Your task to perform on an android device: Open the map Image 0: 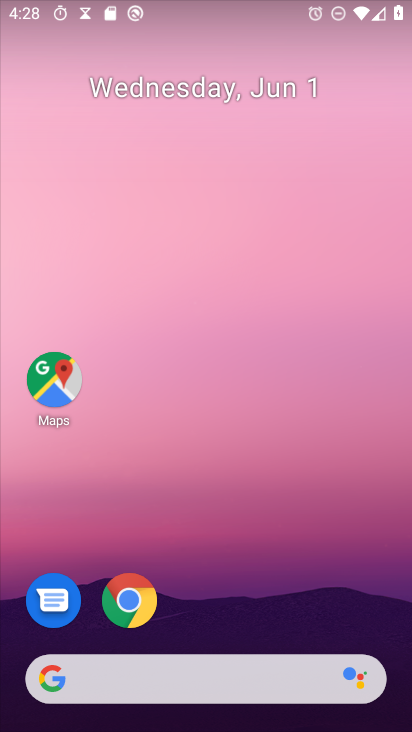
Step 0: drag from (200, 632) to (224, 217)
Your task to perform on an android device: Open the map Image 1: 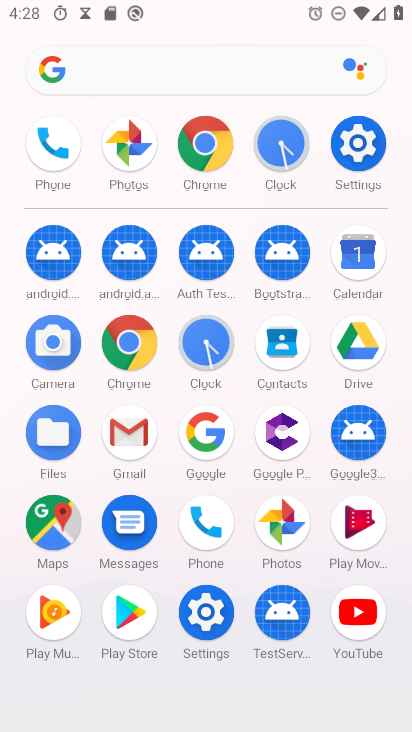
Step 1: click (39, 549)
Your task to perform on an android device: Open the map Image 2: 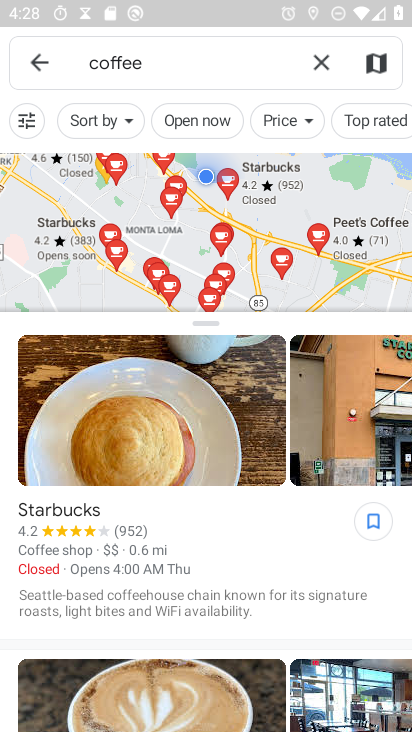
Step 2: task complete